Your task to perform on an android device: Open Yahoo.com Image 0: 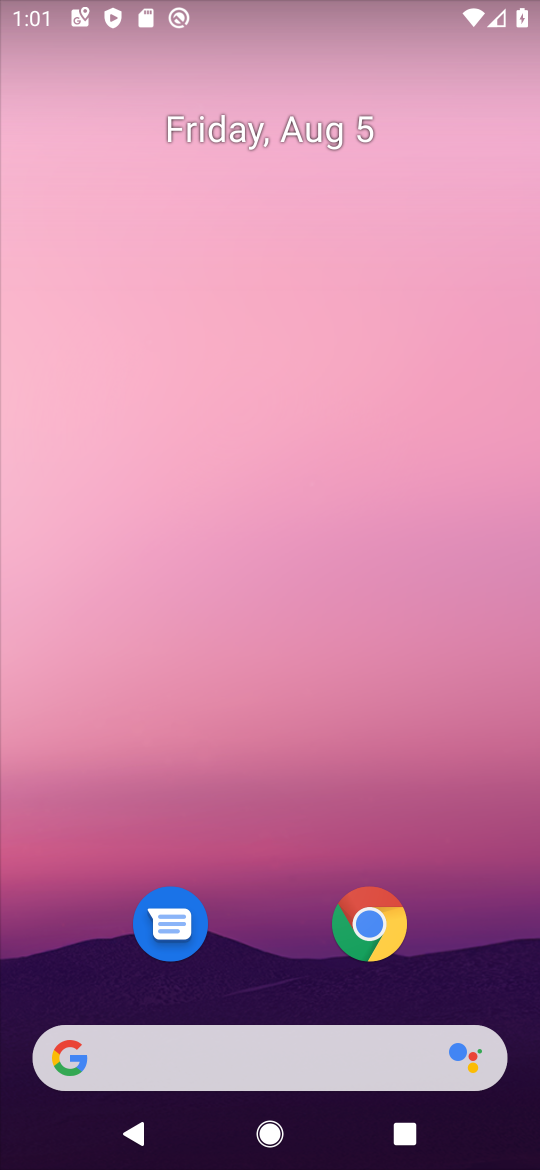
Step 0: click (375, 926)
Your task to perform on an android device: Open Yahoo.com Image 1: 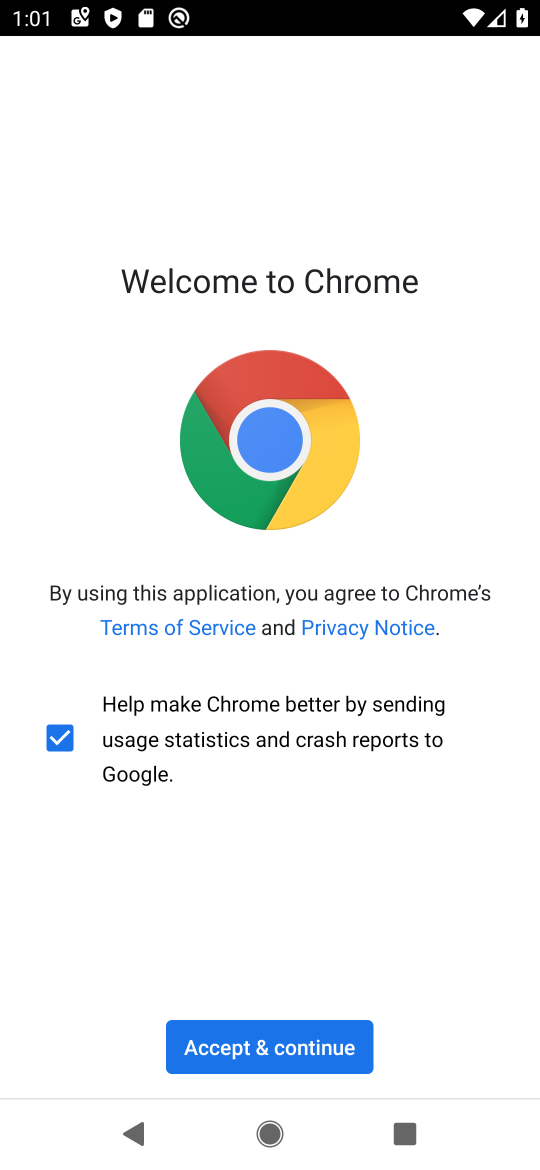
Step 1: click (268, 1049)
Your task to perform on an android device: Open Yahoo.com Image 2: 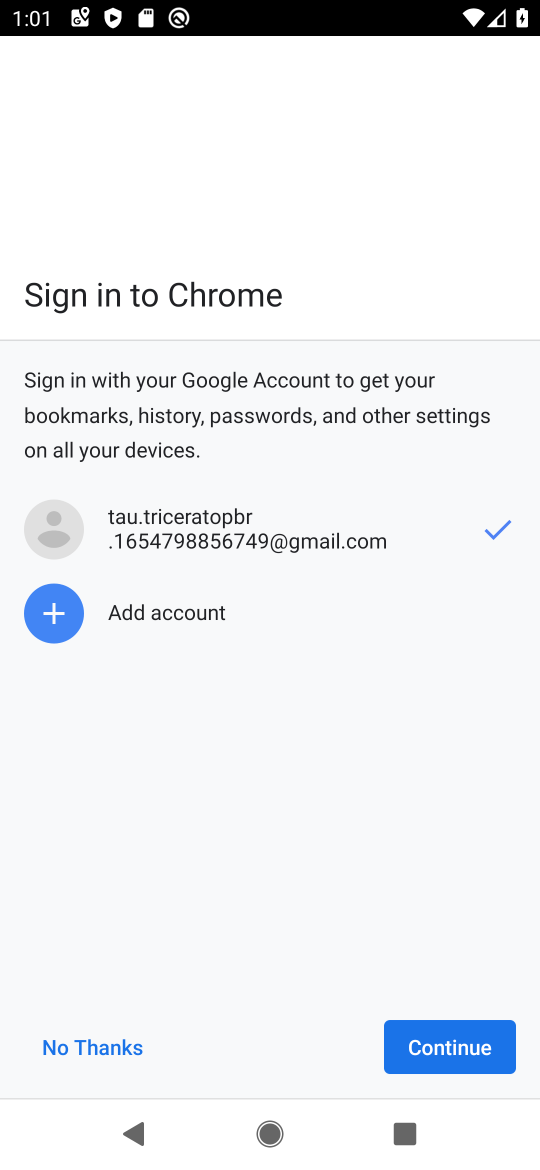
Step 2: click (451, 1049)
Your task to perform on an android device: Open Yahoo.com Image 3: 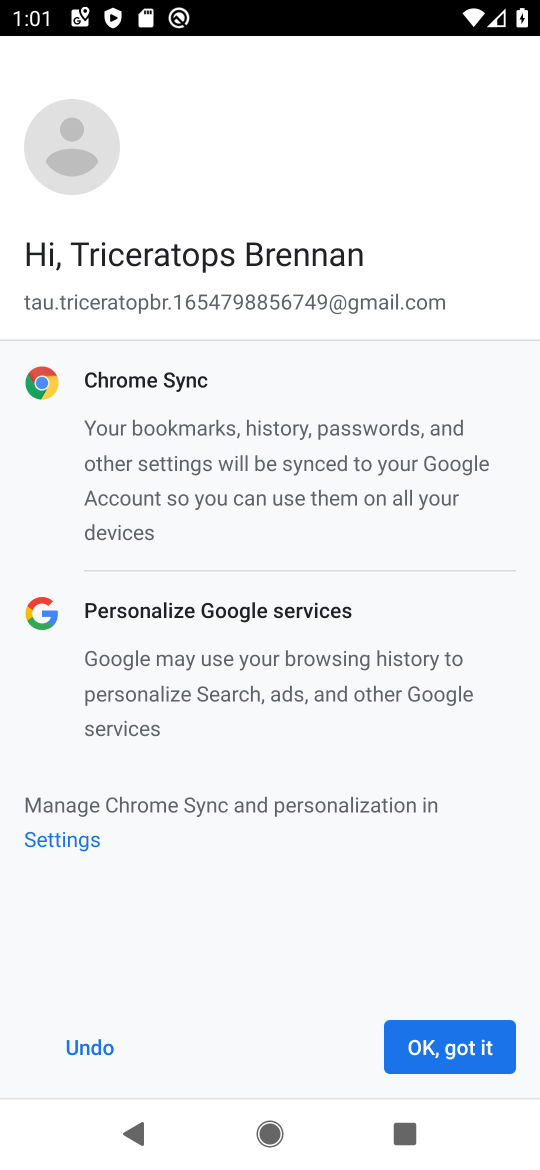
Step 3: click (451, 1049)
Your task to perform on an android device: Open Yahoo.com Image 4: 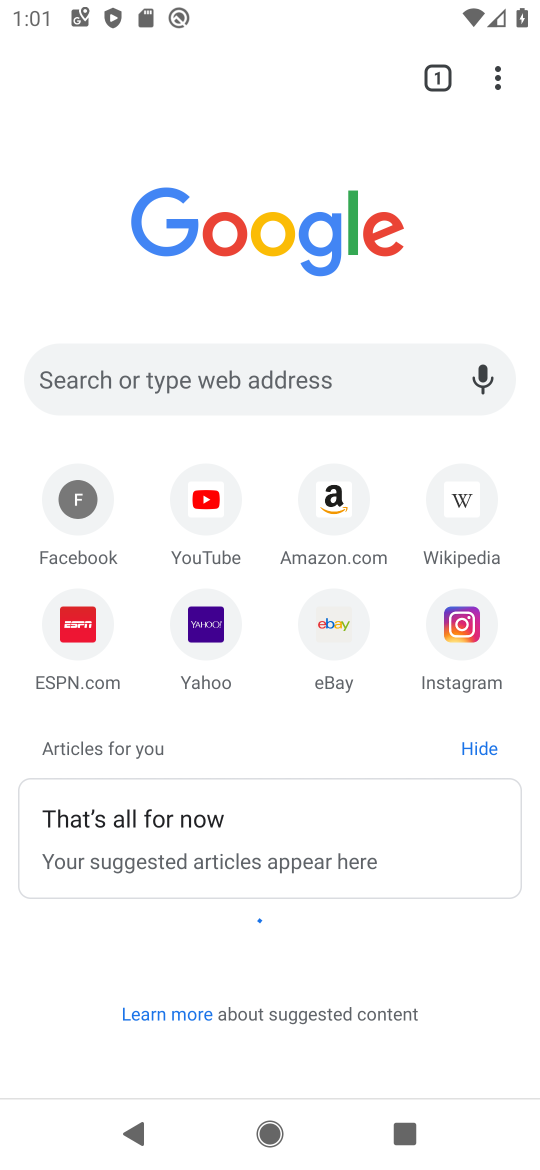
Step 4: click (218, 628)
Your task to perform on an android device: Open Yahoo.com Image 5: 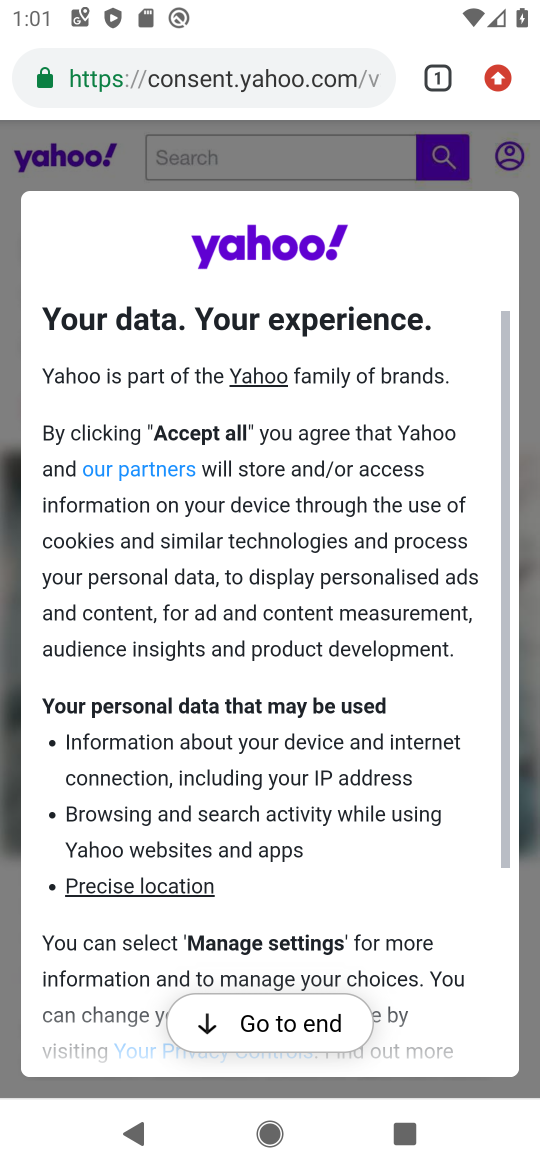
Step 5: click (291, 1015)
Your task to perform on an android device: Open Yahoo.com Image 6: 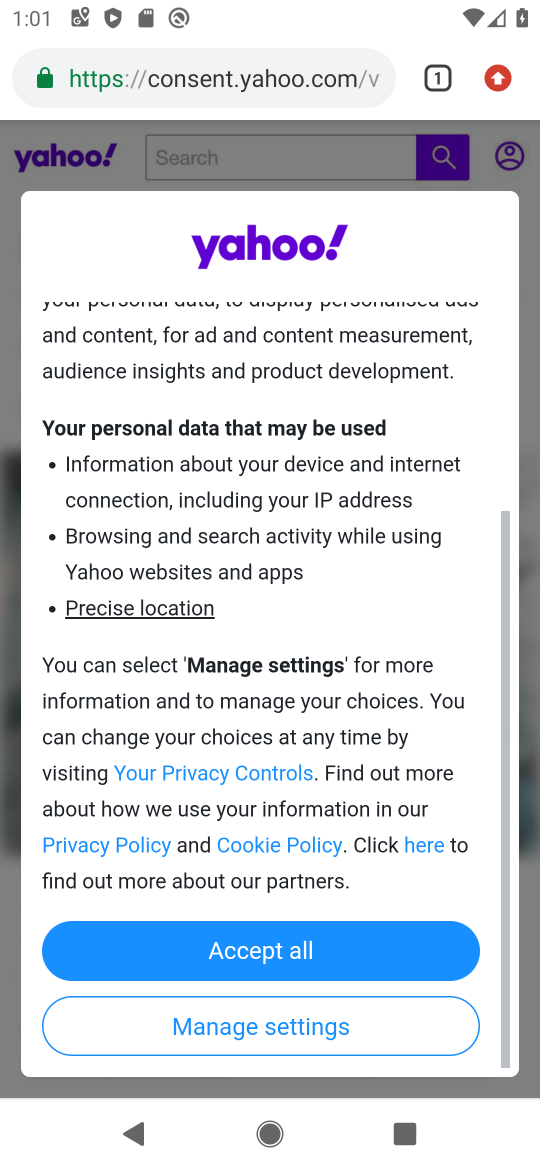
Step 6: click (308, 957)
Your task to perform on an android device: Open Yahoo.com Image 7: 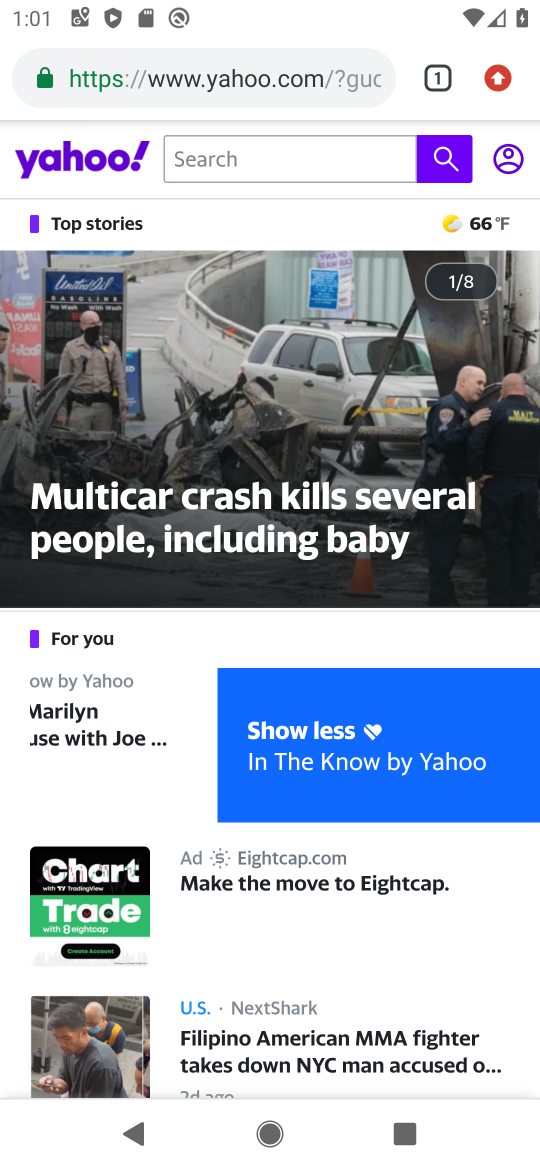
Step 7: task complete